Your task to perform on an android device: turn pop-ups off in chrome Image 0: 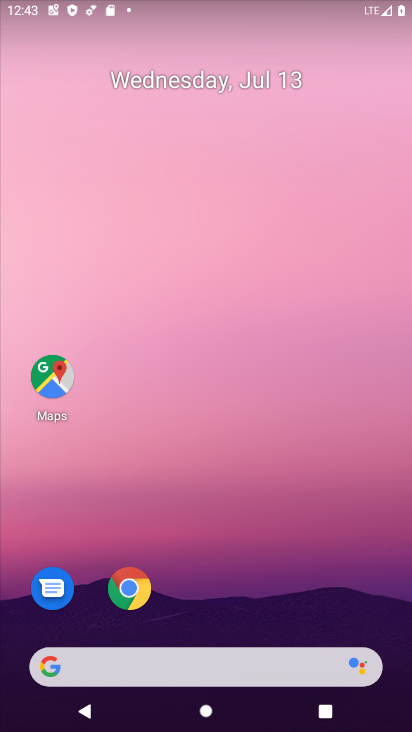
Step 0: click (136, 587)
Your task to perform on an android device: turn pop-ups off in chrome Image 1: 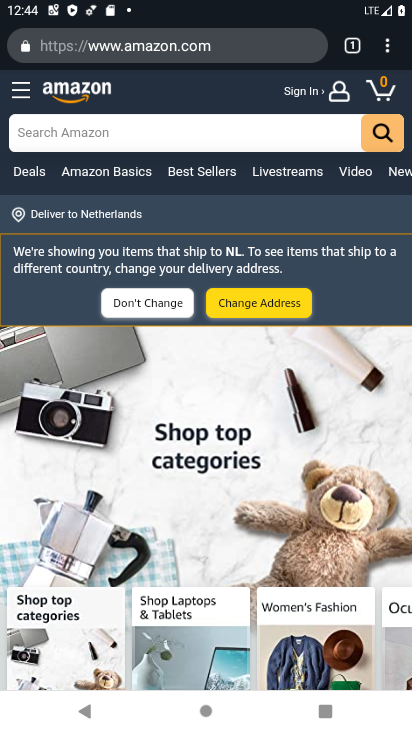
Step 1: click (388, 44)
Your task to perform on an android device: turn pop-ups off in chrome Image 2: 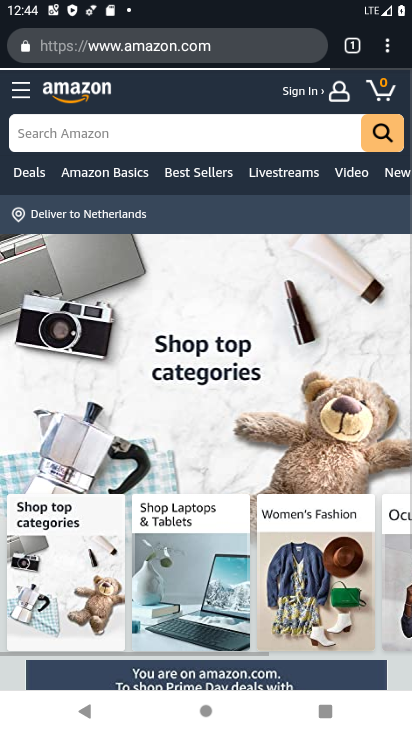
Step 2: click (388, 44)
Your task to perform on an android device: turn pop-ups off in chrome Image 3: 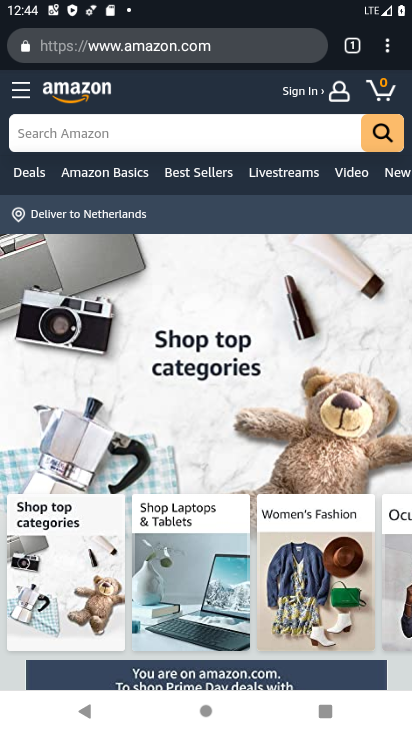
Step 3: click (388, 46)
Your task to perform on an android device: turn pop-ups off in chrome Image 4: 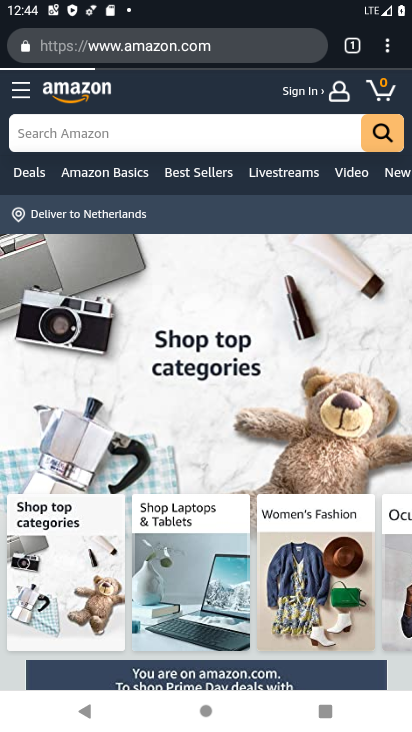
Step 4: click (388, 46)
Your task to perform on an android device: turn pop-ups off in chrome Image 5: 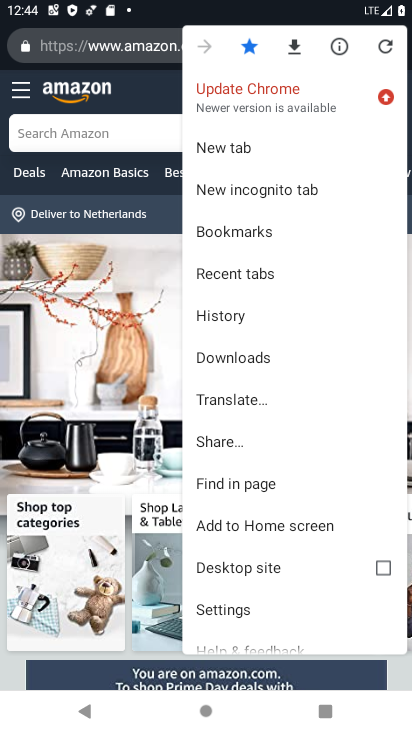
Step 5: click (228, 613)
Your task to perform on an android device: turn pop-ups off in chrome Image 6: 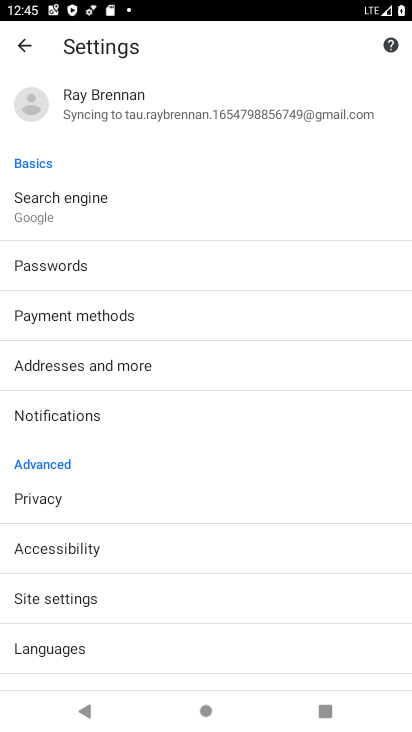
Step 6: click (54, 596)
Your task to perform on an android device: turn pop-ups off in chrome Image 7: 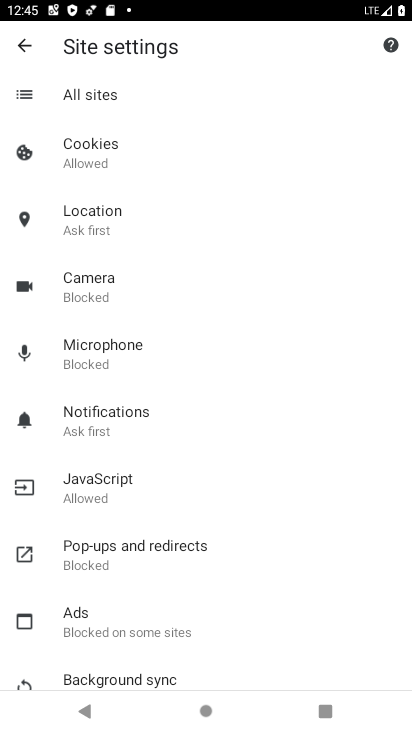
Step 7: click (103, 551)
Your task to perform on an android device: turn pop-ups off in chrome Image 8: 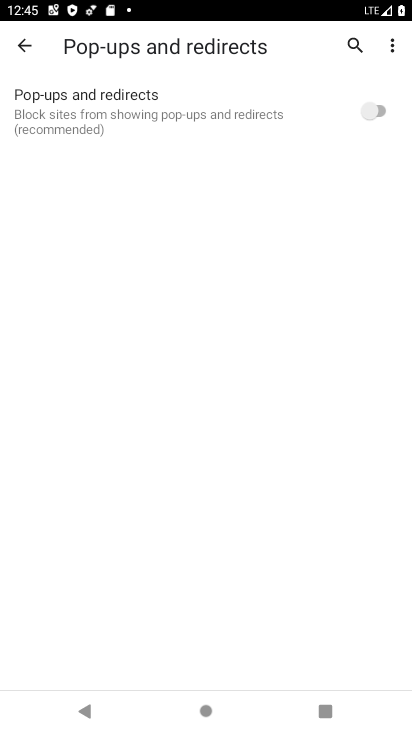
Step 8: task complete